Your task to perform on an android device: Is it going to rain tomorrow? Image 0: 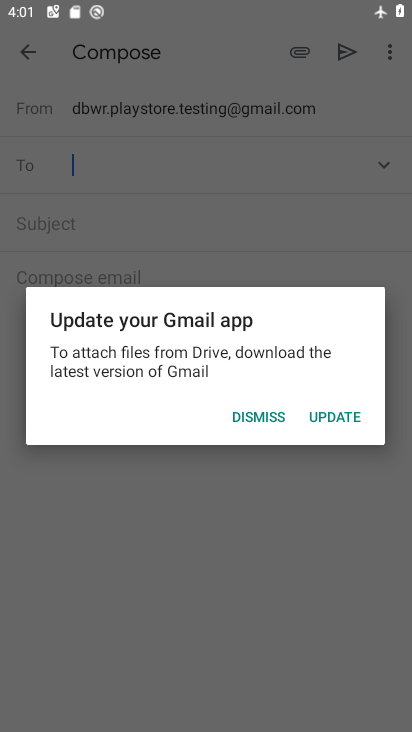
Step 0: press home button
Your task to perform on an android device: Is it going to rain tomorrow? Image 1: 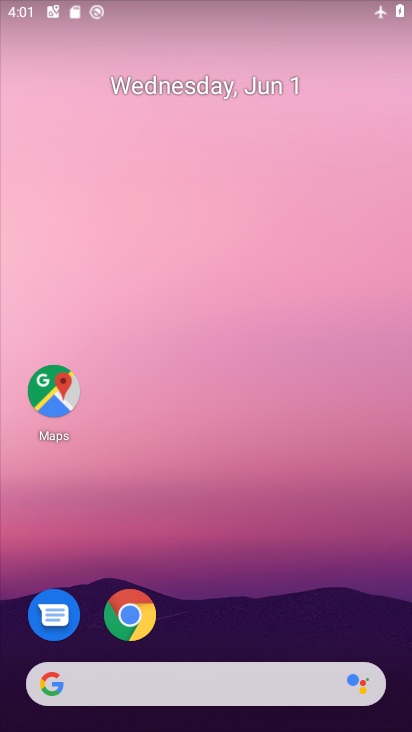
Step 1: drag from (297, 549) to (291, 107)
Your task to perform on an android device: Is it going to rain tomorrow? Image 2: 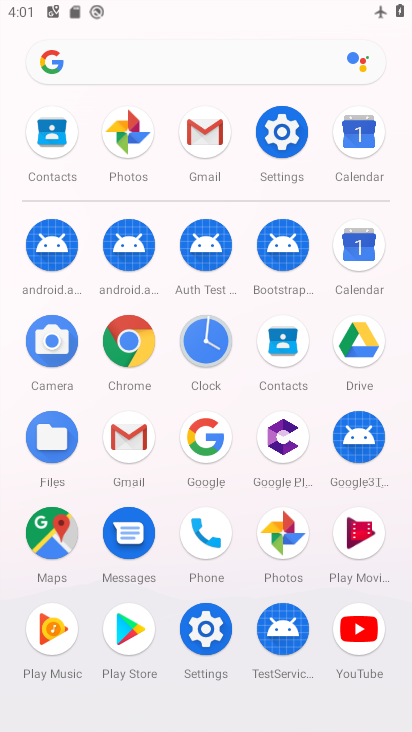
Step 2: click (124, 352)
Your task to perform on an android device: Is it going to rain tomorrow? Image 3: 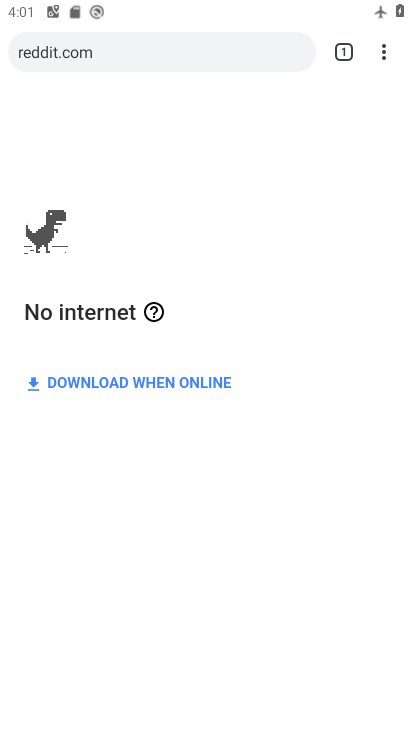
Step 3: click (177, 55)
Your task to perform on an android device: Is it going to rain tomorrow? Image 4: 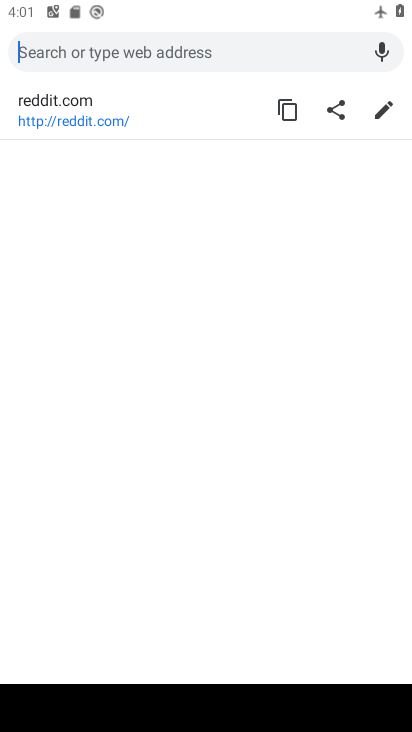
Step 4: type "weather"
Your task to perform on an android device: Is it going to rain tomorrow? Image 5: 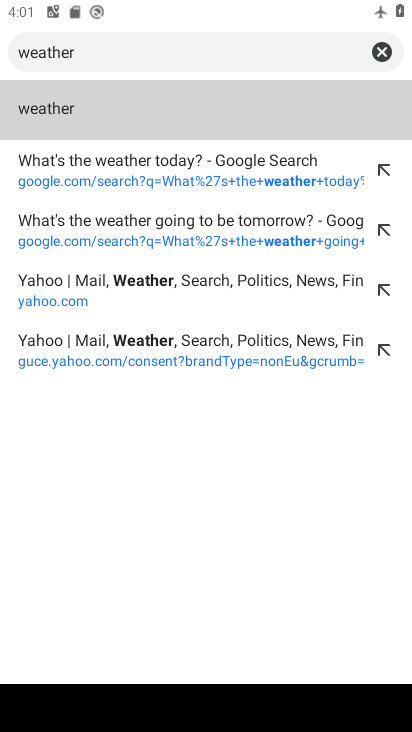
Step 5: click (66, 109)
Your task to perform on an android device: Is it going to rain tomorrow? Image 6: 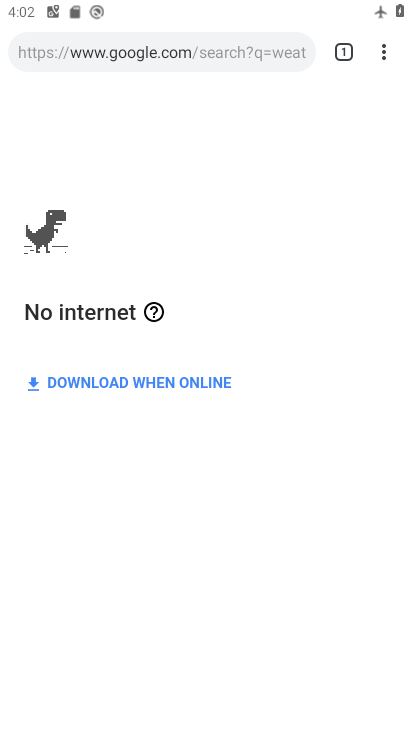
Step 6: task complete